Your task to perform on an android device: Open Maps and search for coffee Image 0: 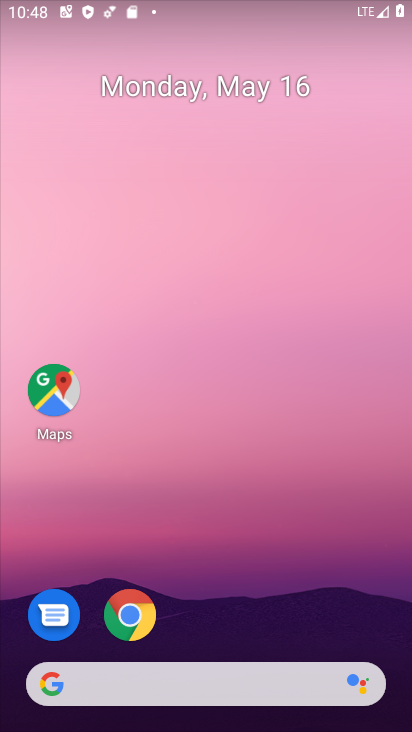
Step 0: drag from (257, 631) to (253, 189)
Your task to perform on an android device: Open Maps and search for coffee Image 1: 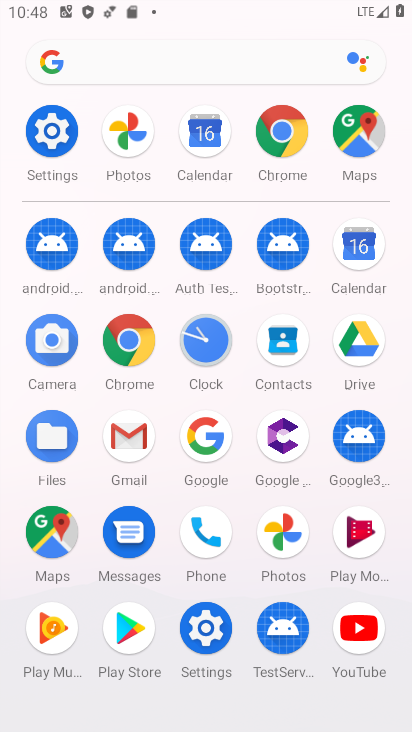
Step 1: click (39, 550)
Your task to perform on an android device: Open Maps and search for coffee Image 2: 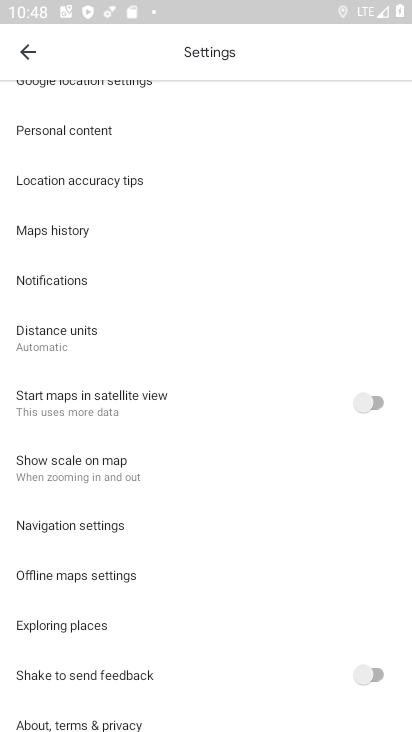
Step 2: click (25, 48)
Your task to perform on an android device: Open Maps and search for coffee Image 3: 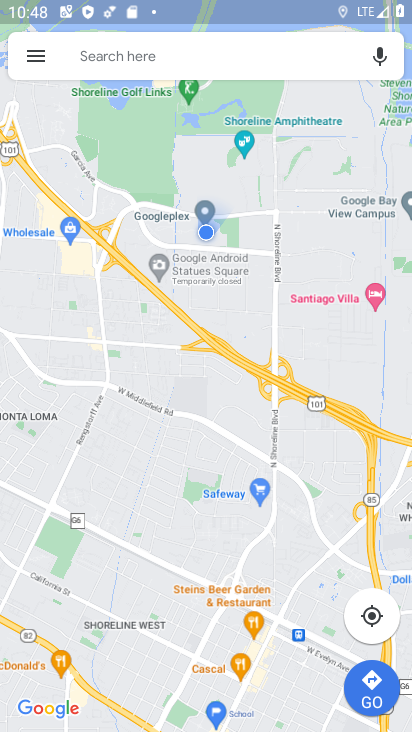
Step 3: click (148, 59)
Your task to perform on an android device: Open Maps and search for coffee Image 4: 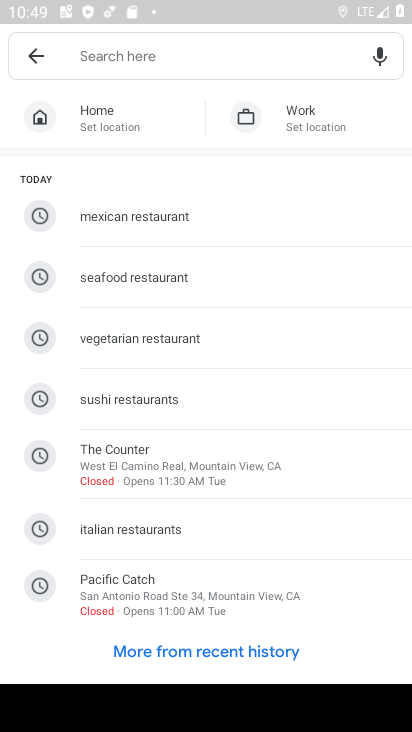
Step 4: type "coffee"
Your task to perform on an android device: Open Maps and search for coffee Image 5: 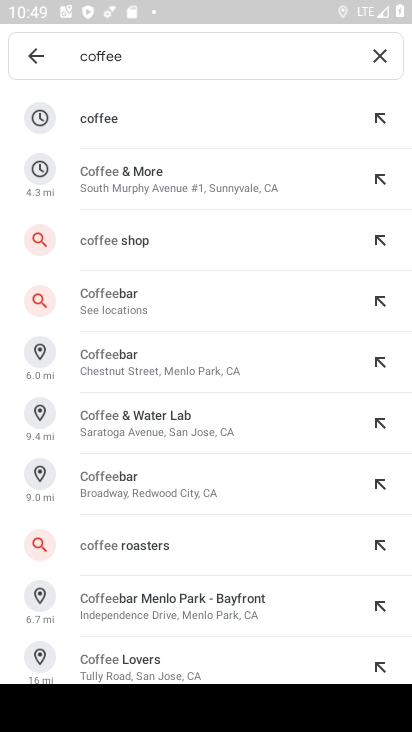
Step 5: click (129, 118)
Your task to perform on an android device: Open Maps and search for coffee Image 6: 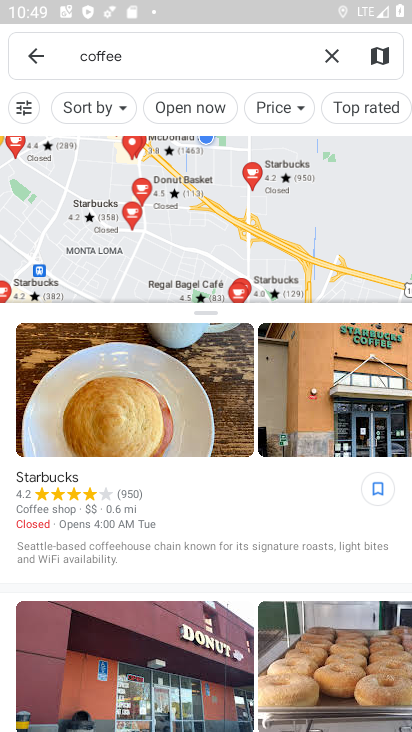
Step 6: task complete